Your task to perform on an android device: install app "Messenger Lite" Image 0: 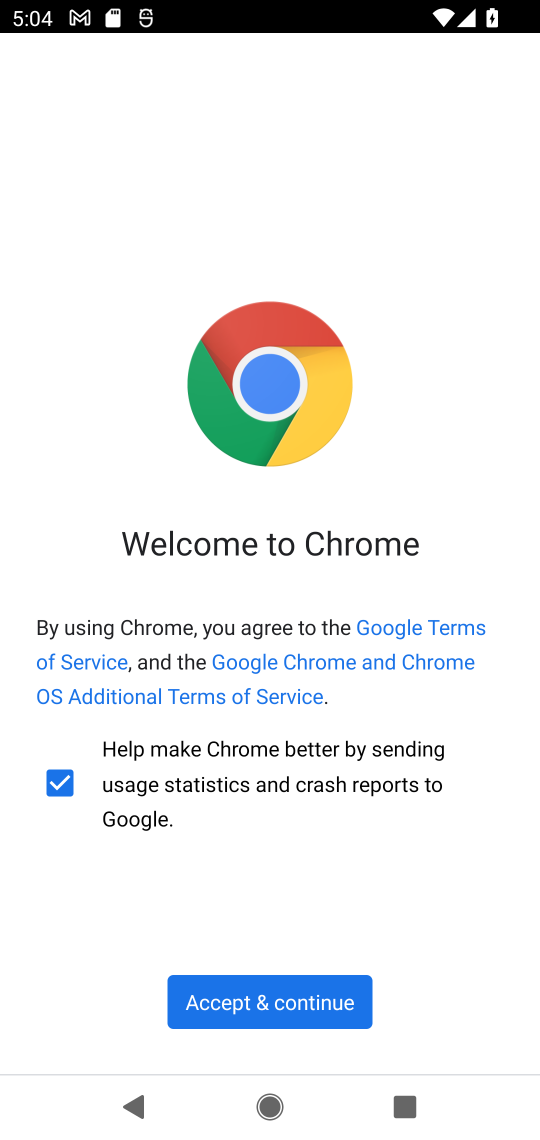
Step 0: press home button
Your task to perform on an android device: install app "Messenger Lite" Image 1: 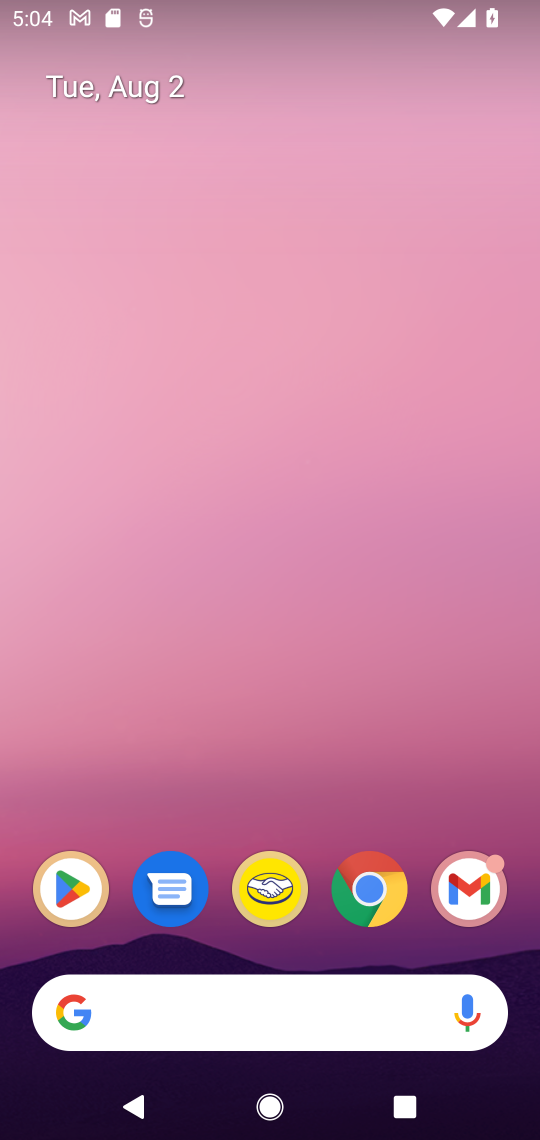
Step 1: drag from (407, 799) to (395, 101)
Your task to perform on an android device: install app "Messenger Lite" Image 2: 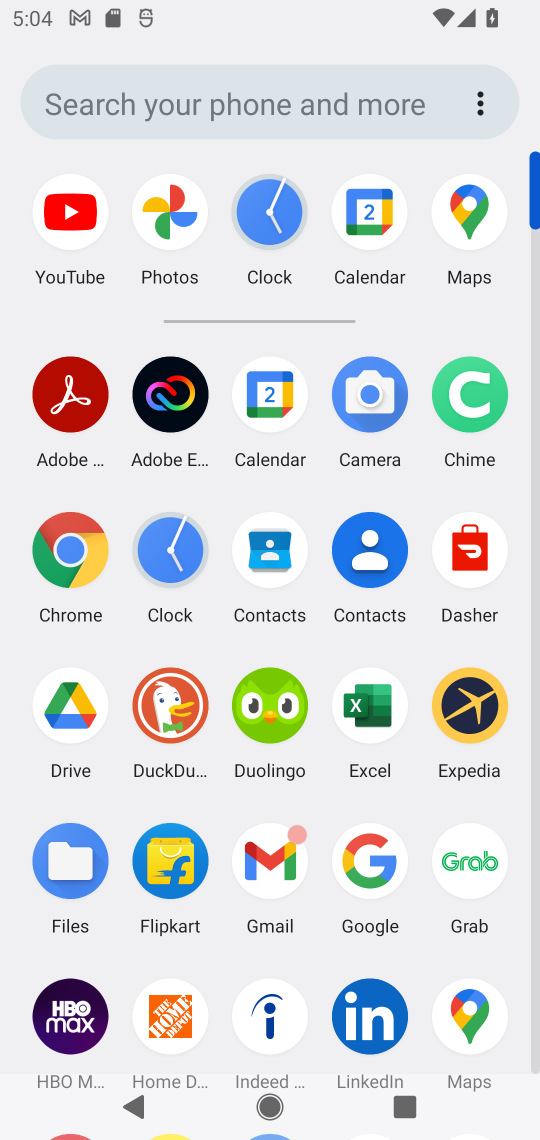
Step 2: drag from (522, 982) to (521, 393)
Your task to perform on an android device: install app "Messenger Lite" Image 3: 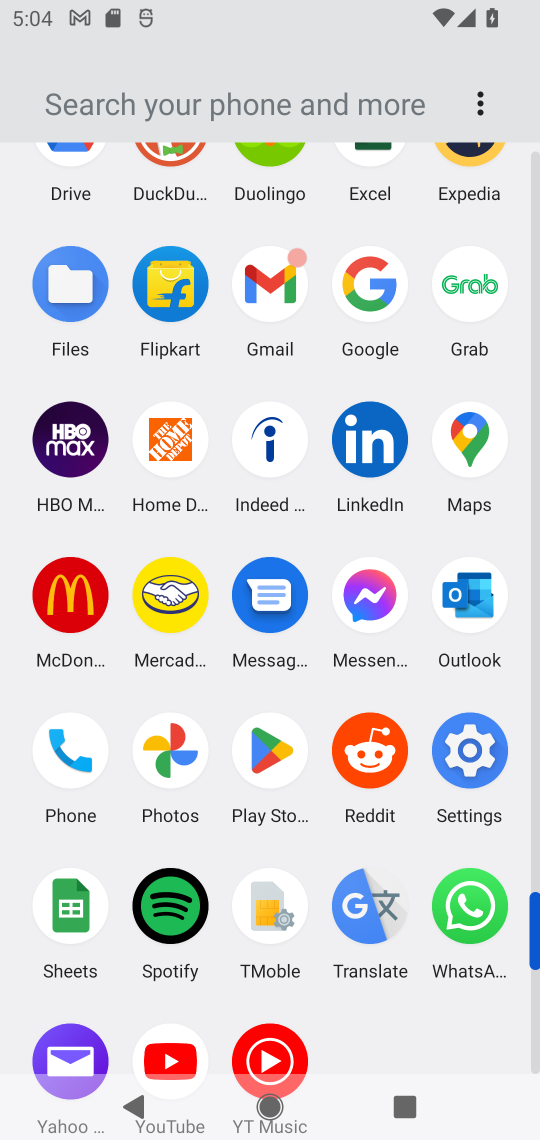
Step 3: click (270, 753)
Your task to perform on an android device: install app "Messenger Lite" Image 4: 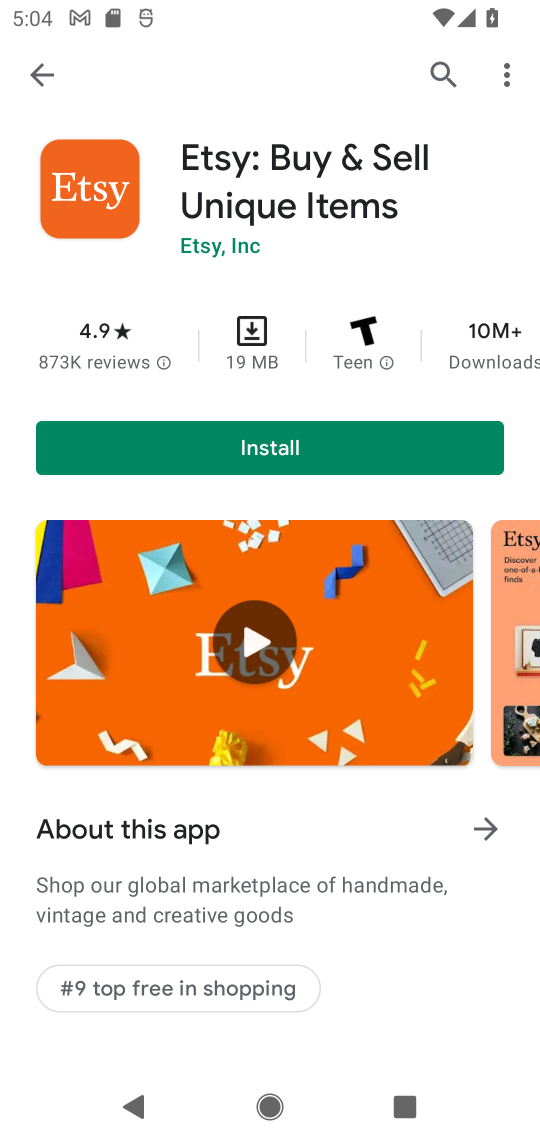
Step 4: click (437, 72)
Your task to perform on an android device: install app "Messenger Lite" Image 5: 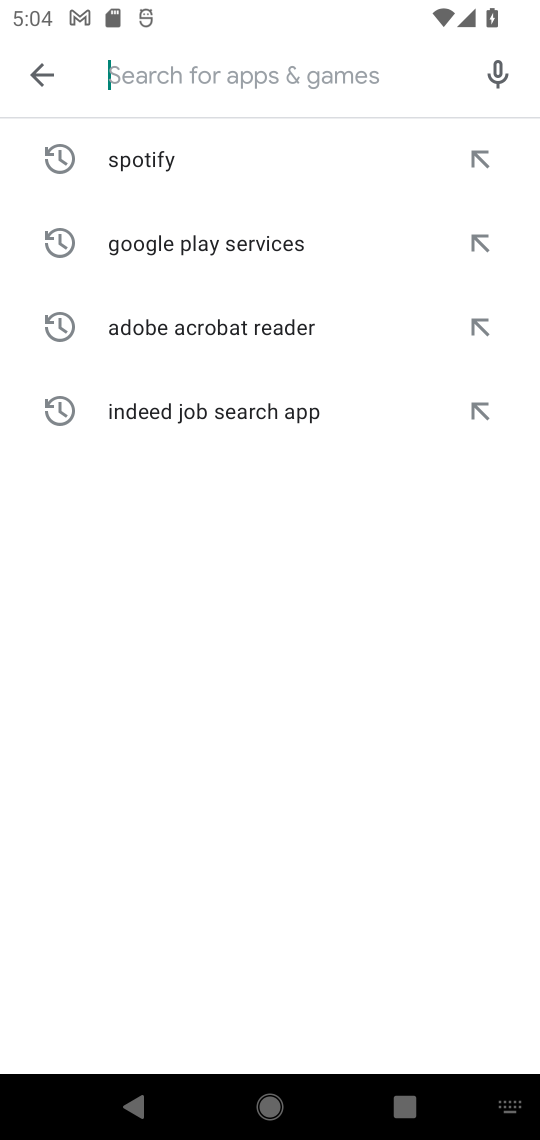
Step 5: click (367, 73)
Your task to perform on an android device: install app "Messenger Lite" Image 6: 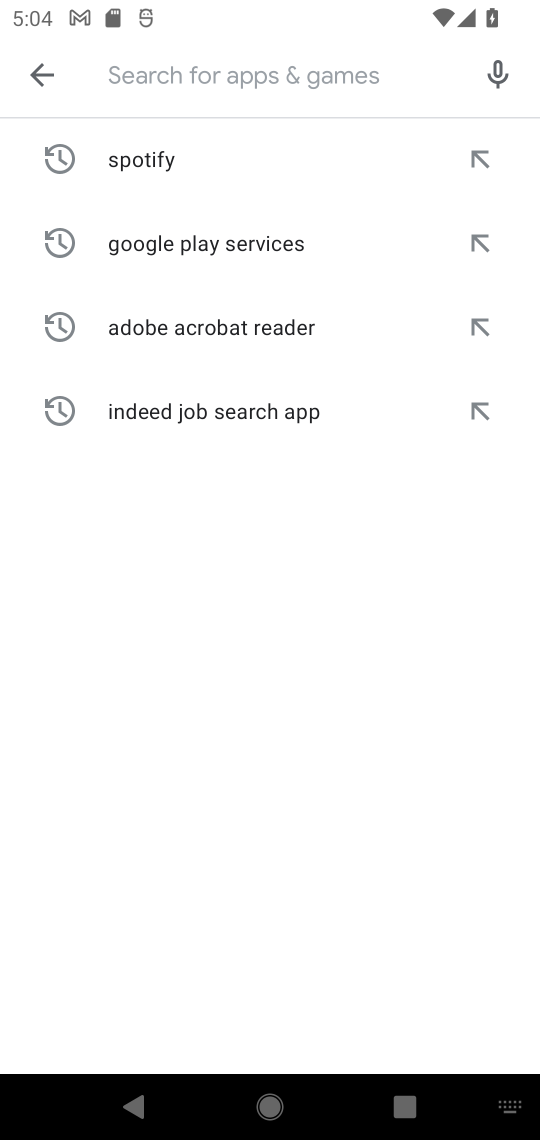
Step 6: type "messenger lite"
Your task to perform on an android device: install app "Messenger Lite" Image 7: 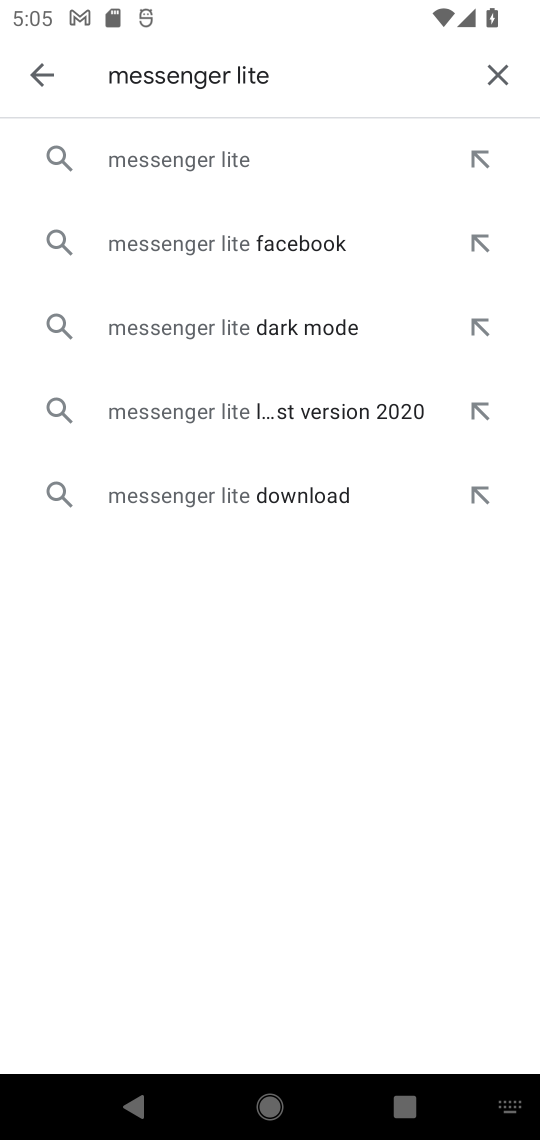
Step 7: click (288, 174)
Your task to perform on an android device: install app "Messenger Lite" Image 8: 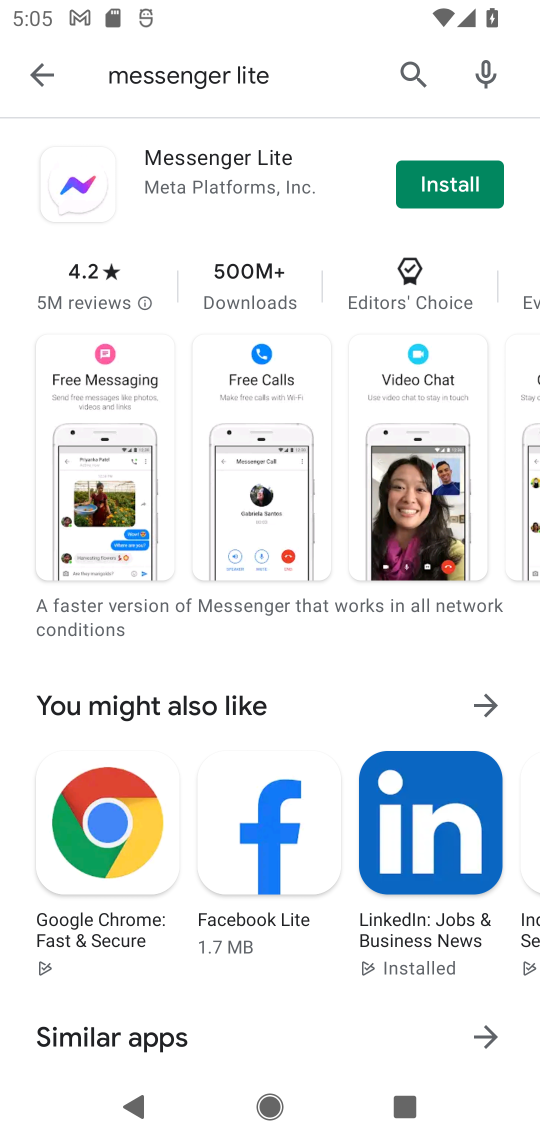
Step 8: click (439, 183)
Your task to perform on an android device: install app "Messenger Lite" Image 9: 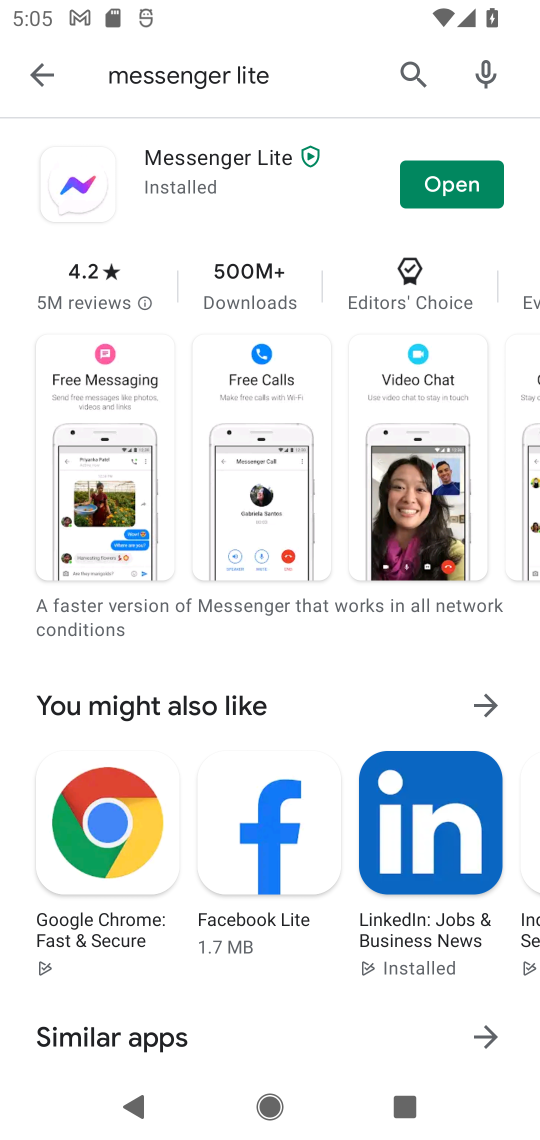
Step 9: task complete